Your task to perform on an android device: turn on translation in the chrome app Image 0: 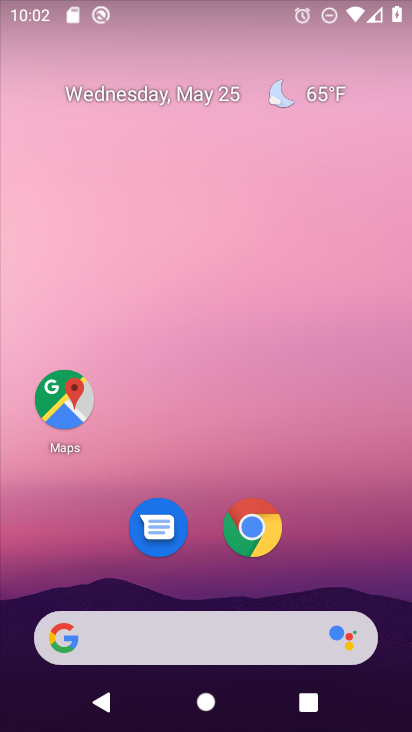
Step 0: click (251, 528)
Your task to perform on an android device: turn on translation in the chrome app Image 1: 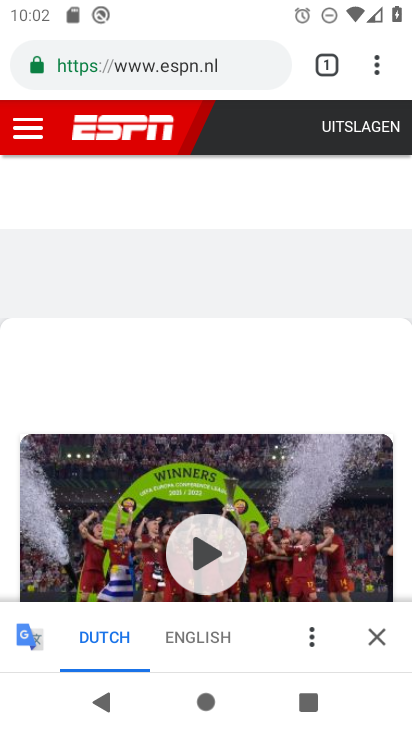
Step 1: click (378, 63)
Your task to perform on an android device: turn on translation in the chrome app Image 2: 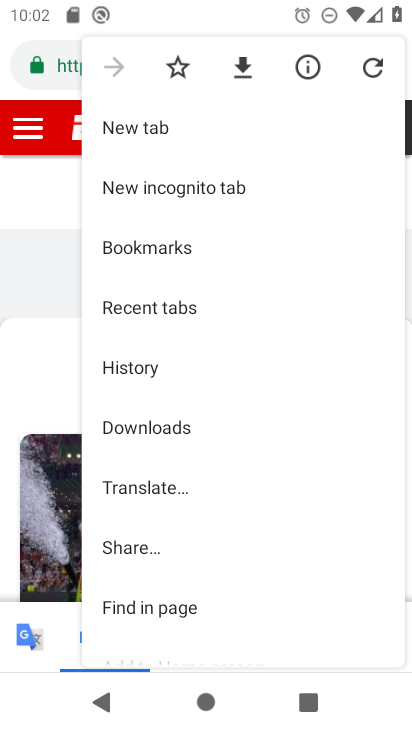
Step 2: drag from (189, 542) to (209, 442)
Your task to perform on an android device: turn on translation in the chrome app Image 3: 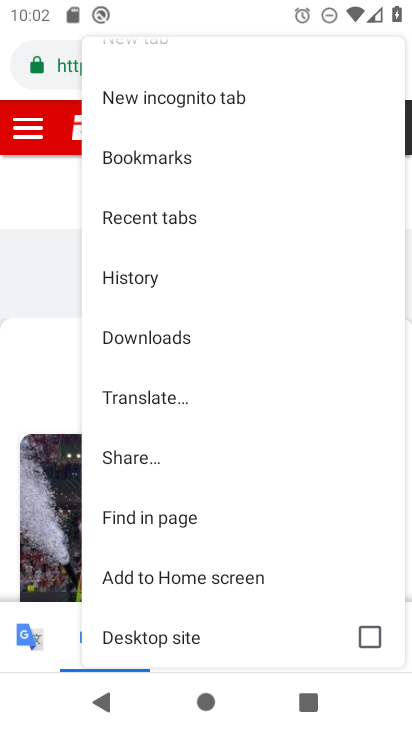
Step 3: drag from (171, 538) to (230, 443)
Your task to perform on an android device: turn on translation in the chrome app Image 4: 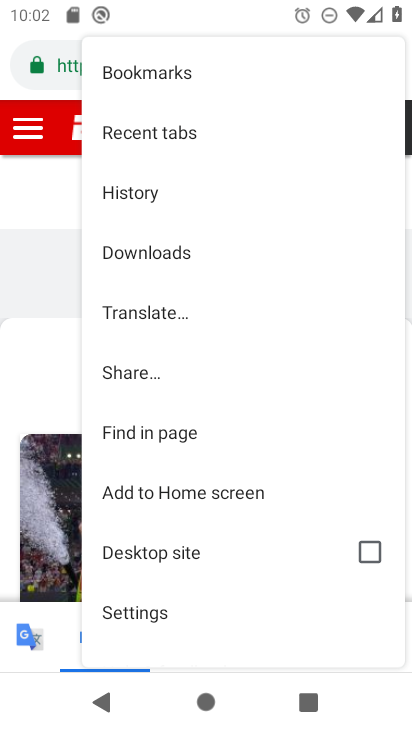
Step 4: drag from (149, 573) to (229, 455)
Your task to perform on an android device: turn on translation in the chrome app Image 5: 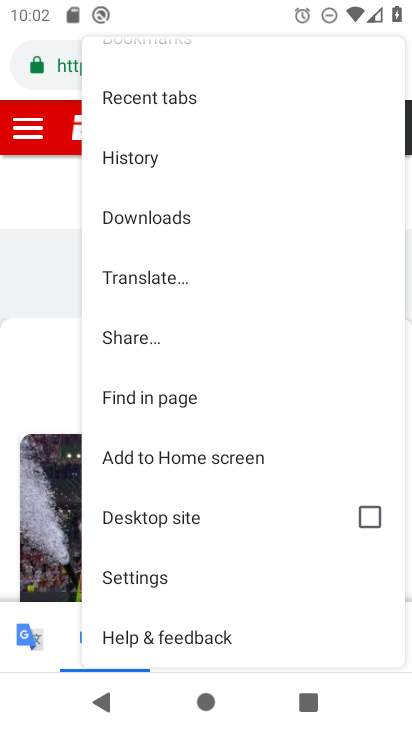
Step 5: click (152, 580)
Your task to perform on an android device: turn on translation in the chrome app Image 6: 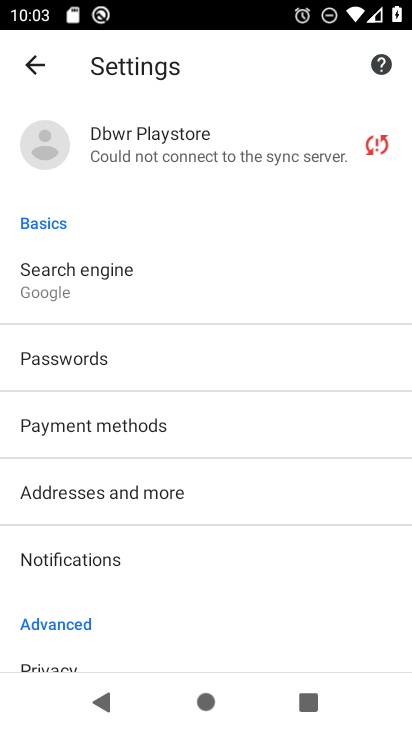
Step 6: drag from (203, 485) to (232, 448)
Your task to perform on an android device: turn on translation in the chrome app Image 7: 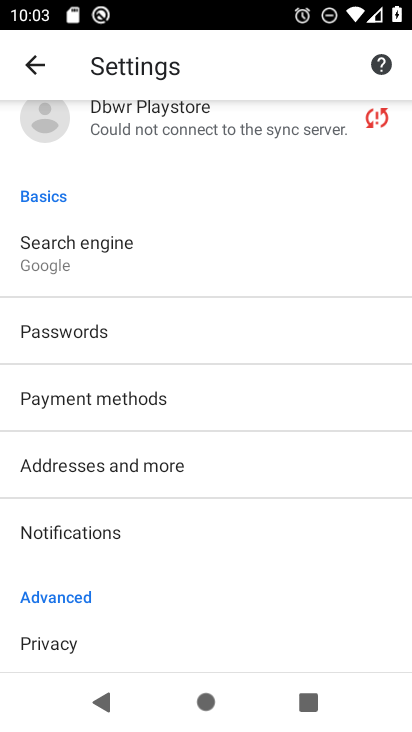
Step 7: drag from (132, 574) to (216, 406)
Your task to perform on an android device: turn on translation in the chrome app Image 8: 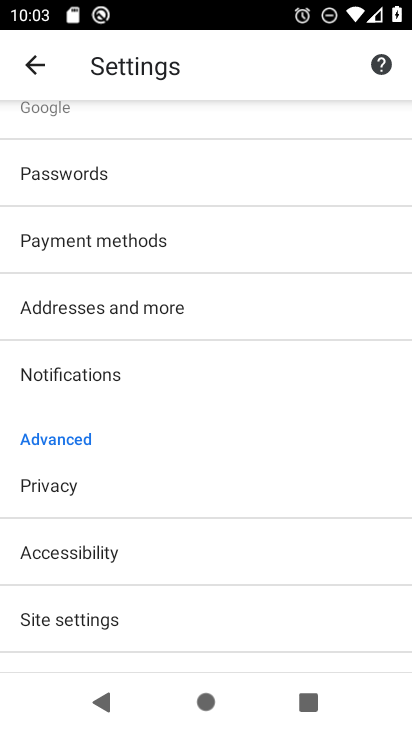
Step 8: drag from (160, 604) to (240, 491)
Your task to perform on an android device: turn on translation in the chrome app Image 9: 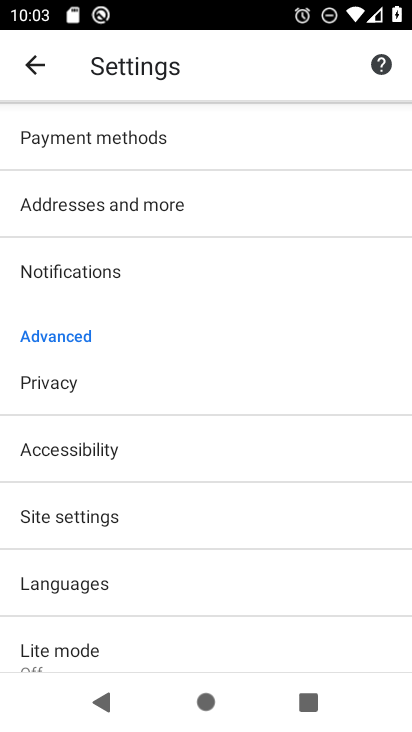
Step 9: click (79, 588)
Your task to perform on an android device: turn on translation in the chrome app Image 10: 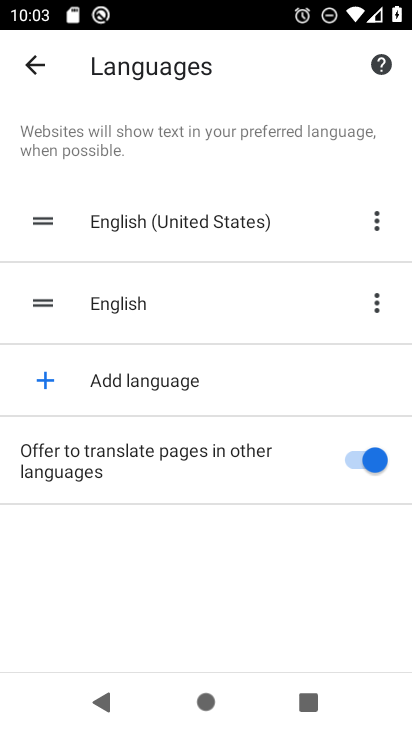
Step 10: task complete